Your task to perform on an android device: stop showing notifications on the lock screen Image 0: 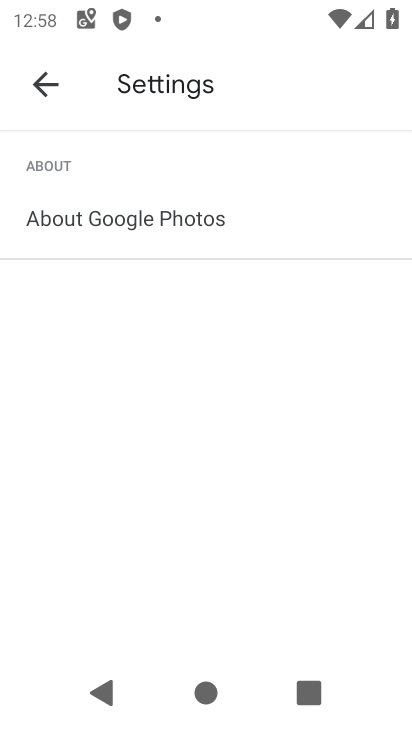
Step 0: press home button
Your task to perform on an android device: stop showing notifications on the lock screen Image 1: 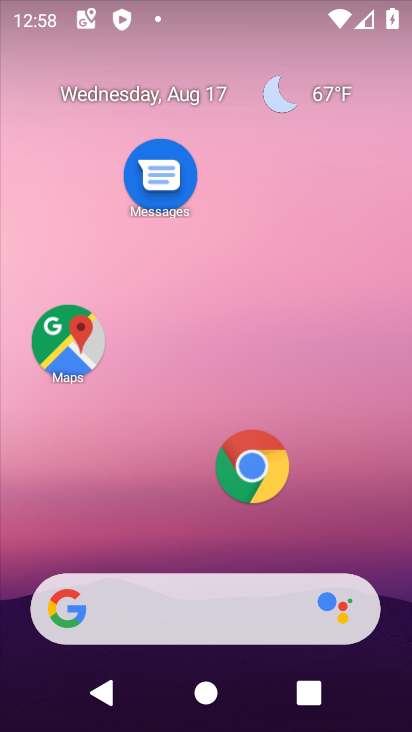
Step 1: drag from (184, 398) to (218, 123)
Your task to perform on an android device: stop showing notifications on the lock screen Image 2: 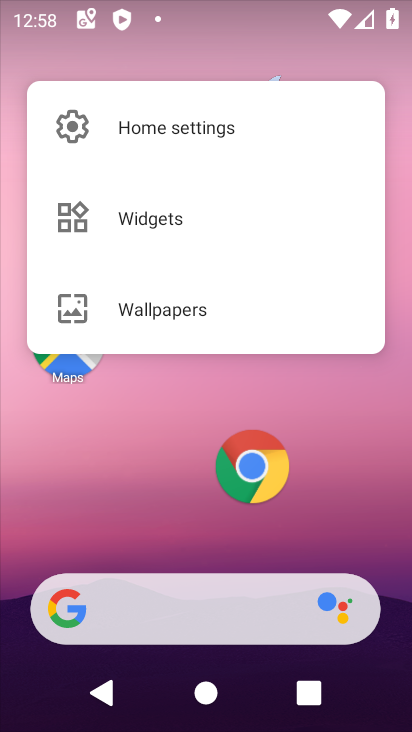
Step 2: drag from (184, 546) to (190, 47)
Your task to perform on an android device: stop showing notifications on the lock screen Image 3: 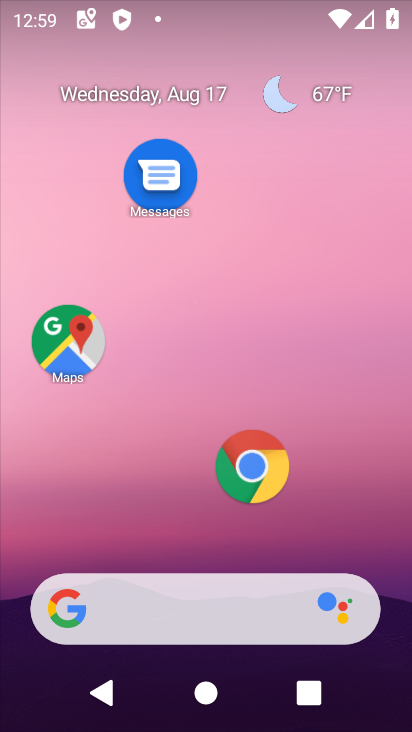
Step 3: drag from (170, 524) to (90, 2)
Your task to perform on an android device: stop showing notifications on the lock screen Image 4: 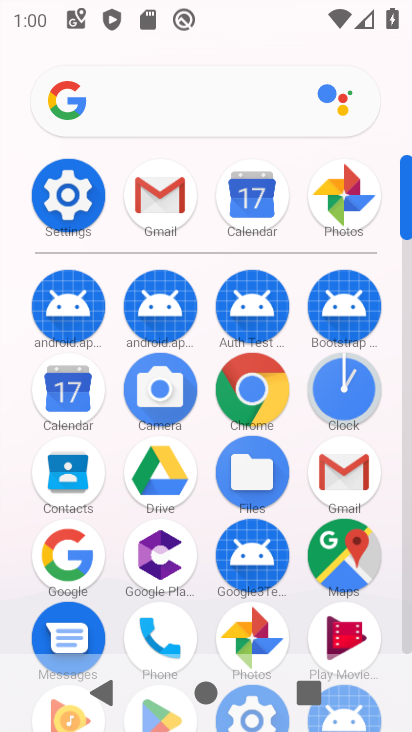
Step 4: click (70, 195)
Your task to perform on an android device: stop showing notifications on the lock screen Image 5: 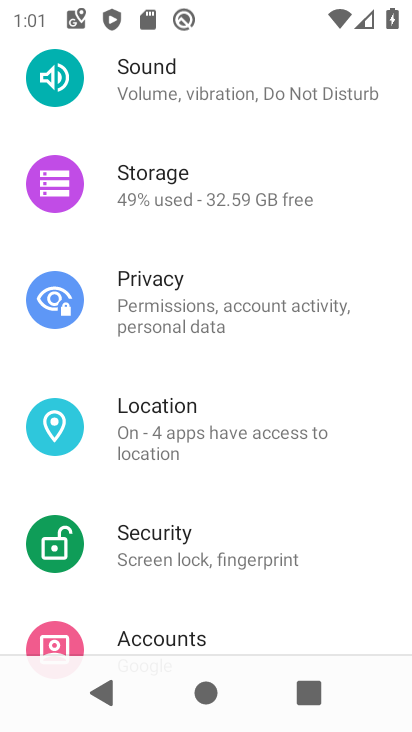
Step 5: drag from (260, 516) to (244, 266)
Your task to perform on an android device: stop showing notifications on the lock screen Image 6: 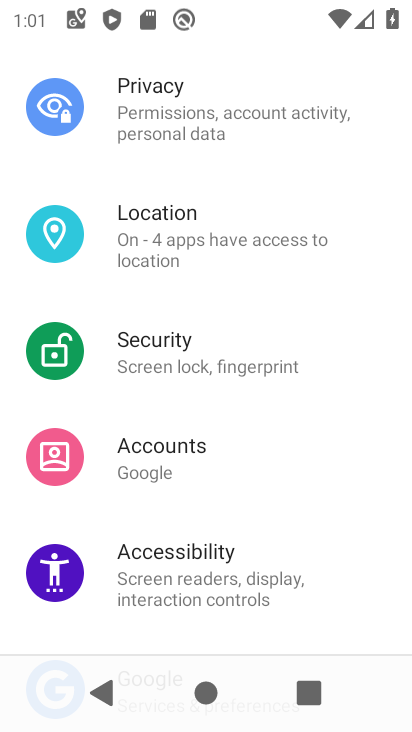
Step 6: drag from (206, 524) to (193, 251)
Your task to perform on an android device: stop showing notifications on the lock screen Image 7: 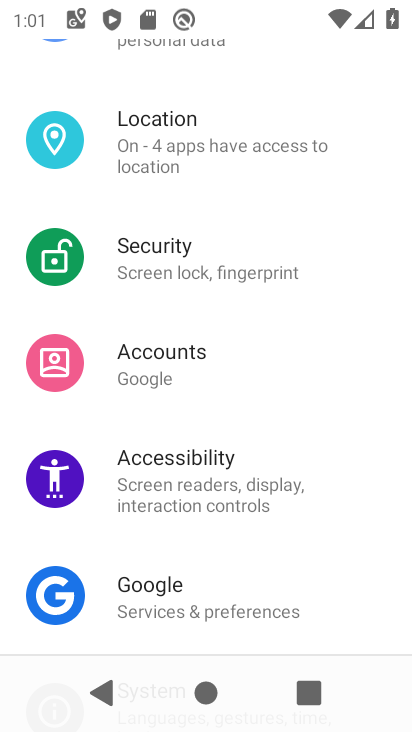
Step 7: drag from (222, 219) to (149, 714)
Your task to perform on an android device: stop showing notifications on the lock screen Image 8: 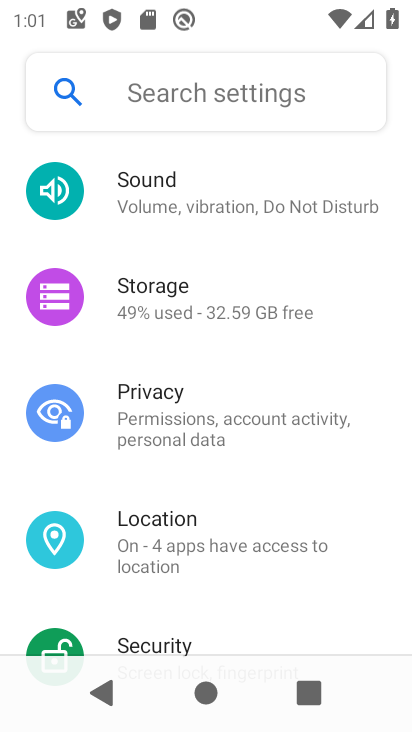
Step 8: drag from (227, 291) to (159, 706)
Your task to perform on an android device: stop showing notifications on the lock screen Image 9: 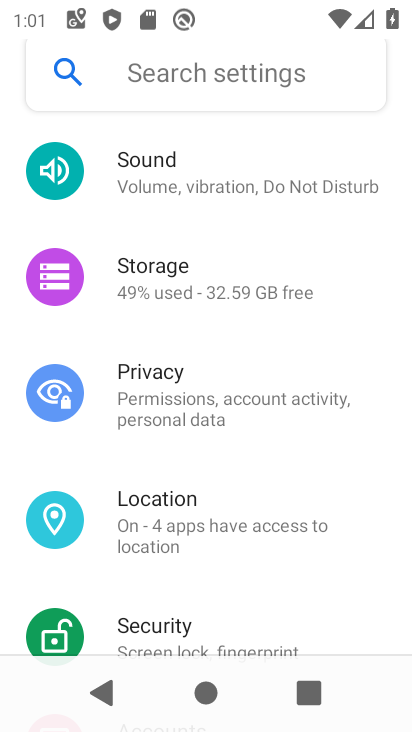
Step 9: drag from (159, 576) to (159, 125)
Your task to perform on an android device: stop showing notifications on the lock screen Image 10: 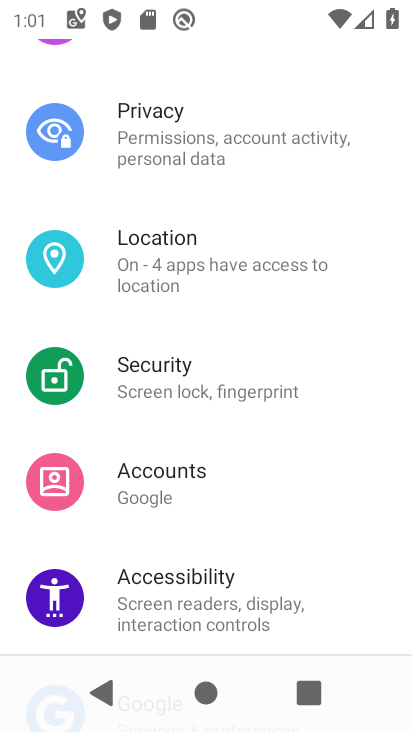
Step 10: drag from (214, 390) to (210, 216)
Your task to perform on an android device: stop showing notifications on the lock screen Image 11: 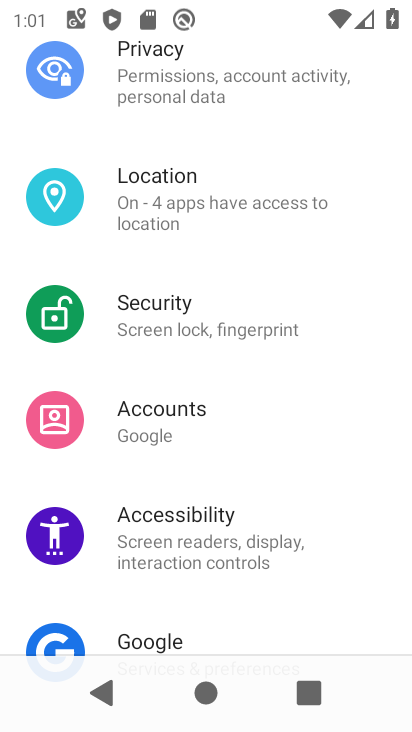
Step 11: drag from (217, 594) to (216, 245)
Your task to perform on an android device: stop showing notifications on the lock screen Image 12: 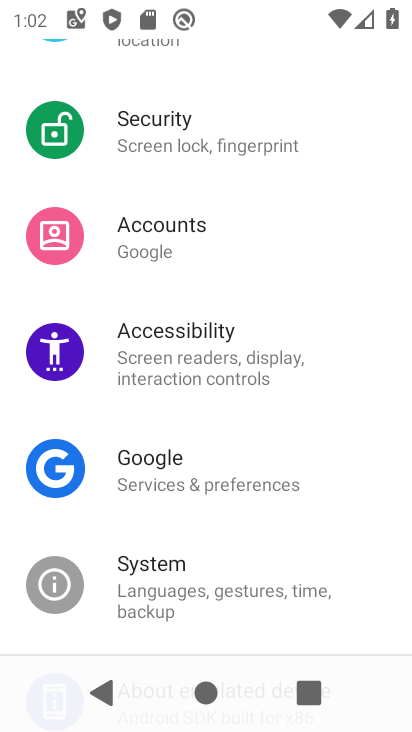
Step 12: drag from (202, 197) to (189, 679)
Your task to perform on an android device: stop showing notifications on the lock screen Image 13: 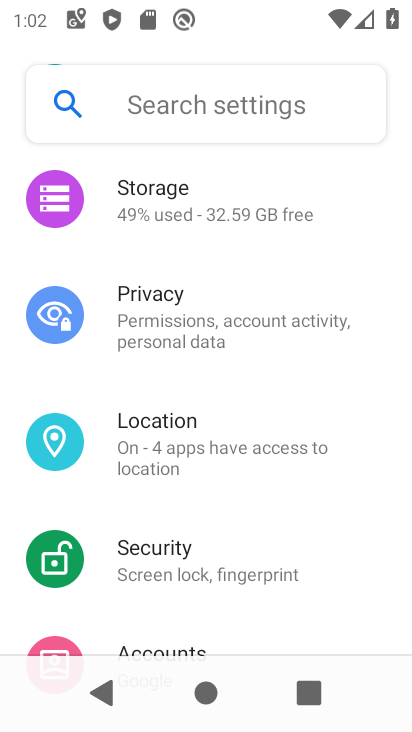
Step 13: drag from (210, 318) to (153, 625)
Your task to perform on an android device: stop showing notifications on the lock screen Image 14: 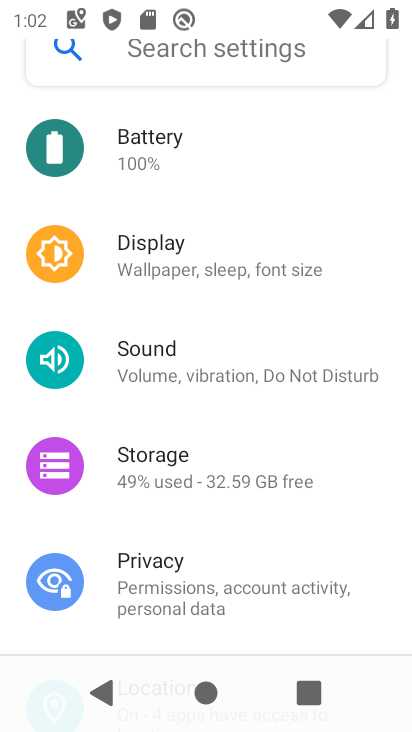
Step 14: drag from (272, 239) to (182, 730)
Your task to perform on an android device: stop showing notifications on the lock screen Image 15: 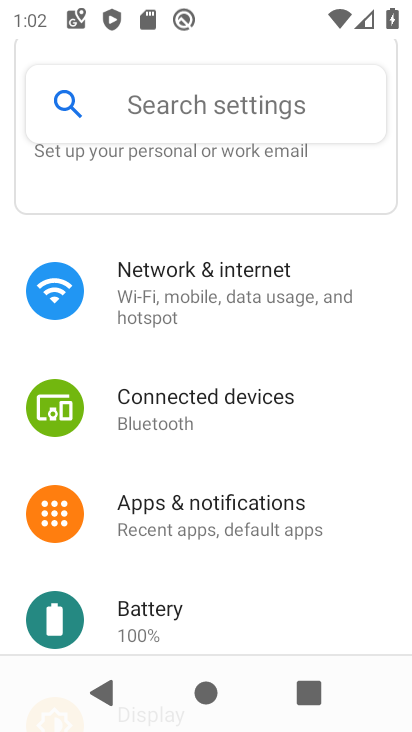
Step 15: drag from (219, 497) to (220, 209)
Your task to perform on an android device: stop showing notifications on the lock screen Image 16: 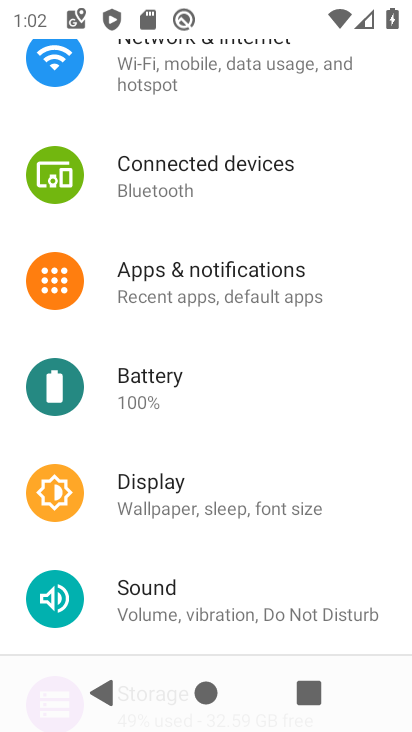
Step 16: click (213, 274)
Your task to perform on an android device: stop showing notifications on the lock screen Image 17: 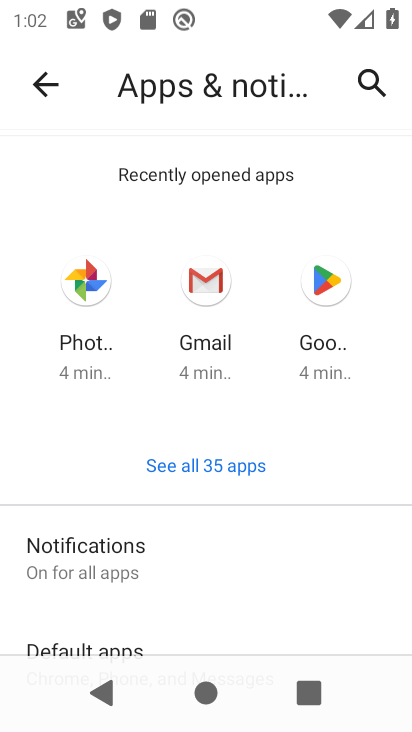
Step 17: click (117, 551)
Your task to perform on an android device: stop showing notifications on the lock screen Image 18: 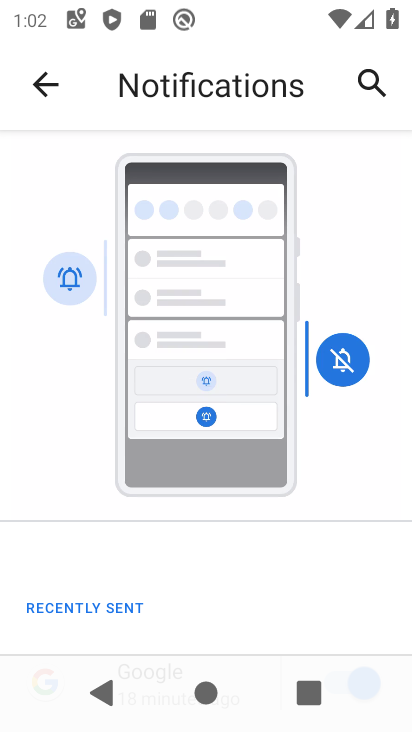
Step 18: drag from (192, 535) to (192, 191)
Your task to perform on an android device: stop showing notifications on the lock screen Image 19: 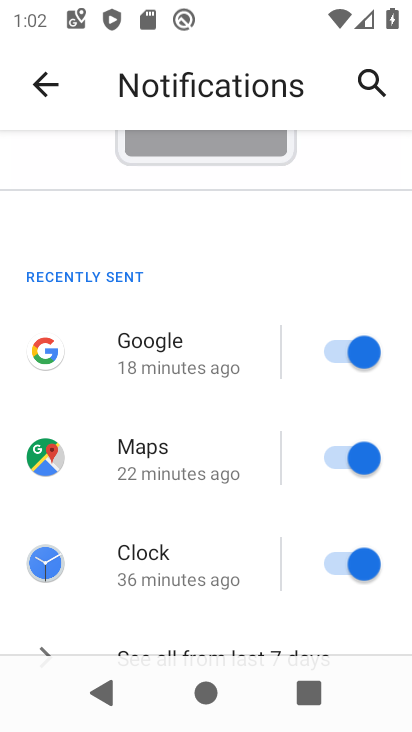
Step 19: drag from (215, 594) to (208, 210)
Your task to perform on an android device: stop showing notifications on the lock screen Image 20: 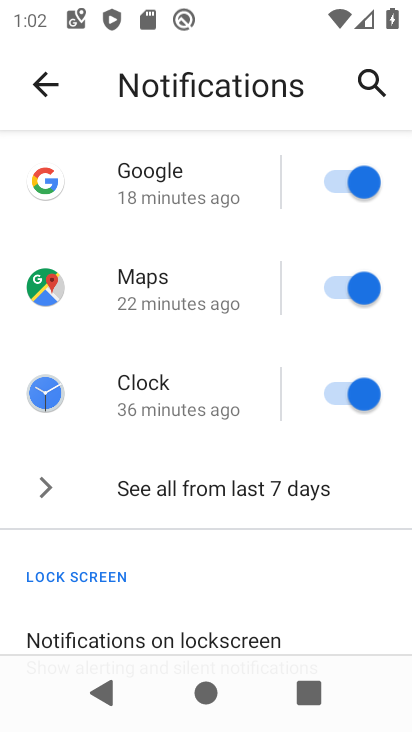
Step 20: drag from (221, 576) to (221, 323)
Your task to perform on an android device: stop showing notifications on the lock screen Image 21: 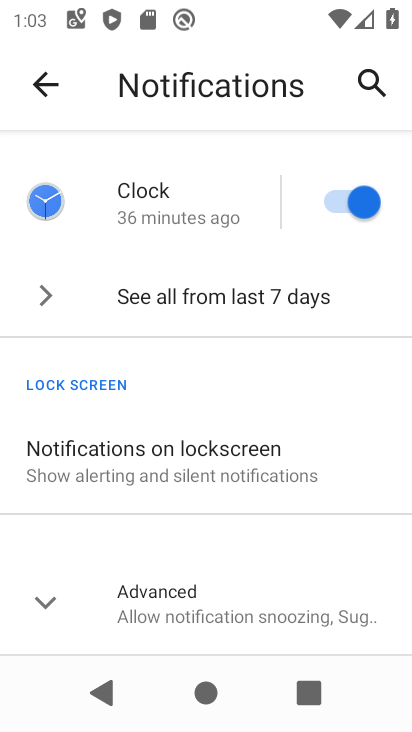
Step 21: click (126, 477)
Your task to perform on an android device: stop showing notifications on the lock screen Image 22: 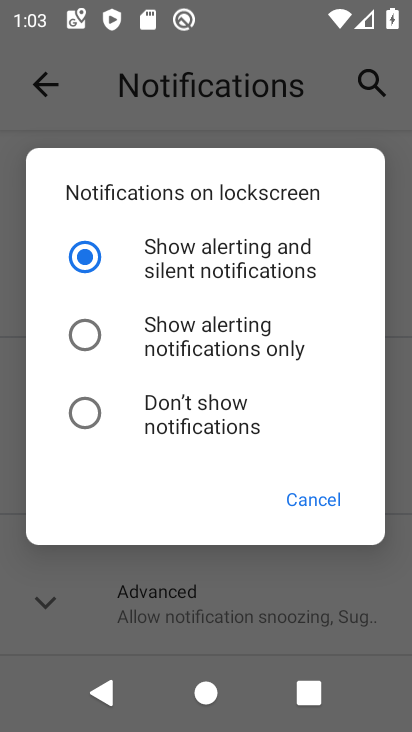
Step 22: click (81, 416)
Your task to perform on an android device: stop showing notifications on the lock screen Image 23: 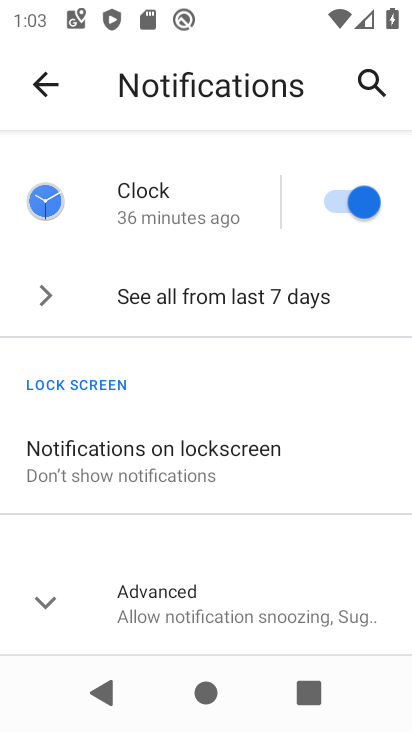
Step 23: task complete